Your task to perform on an android device: change timer sound Image 0: 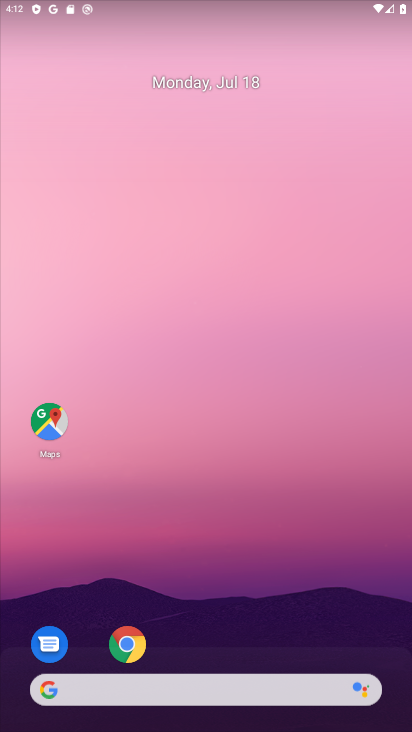
Step 0: drag from (290, 646) to (278, 182)
Your task to perform on an android device: change timer sound Image 1: 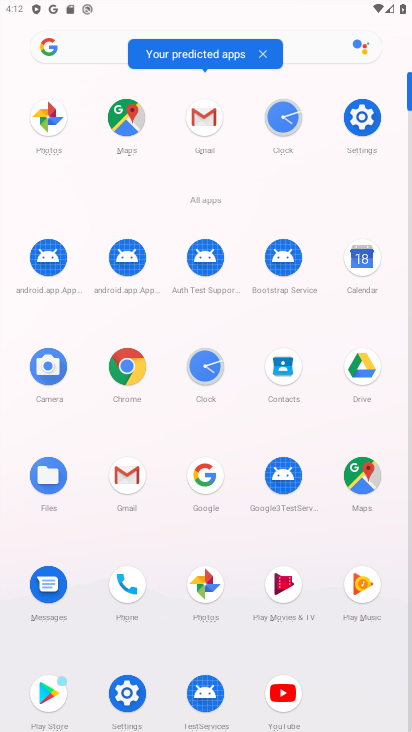
Step 1: click (290, 119)
Your task to perform on an android device: change timer sound Image 2: 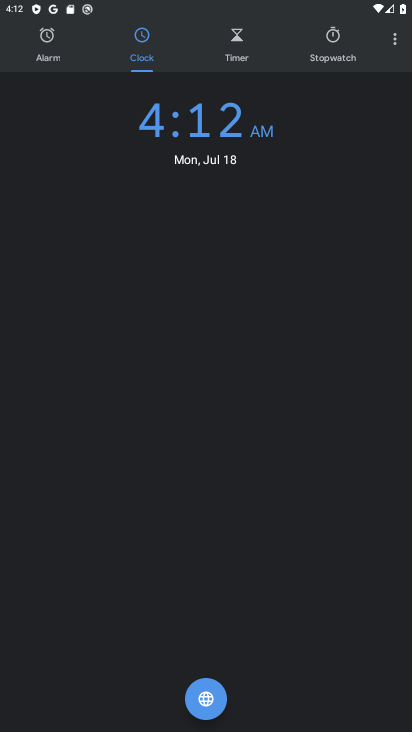
Step 2: click (400, 43)
Your task to perform on an android device: change timer sound Image 3: 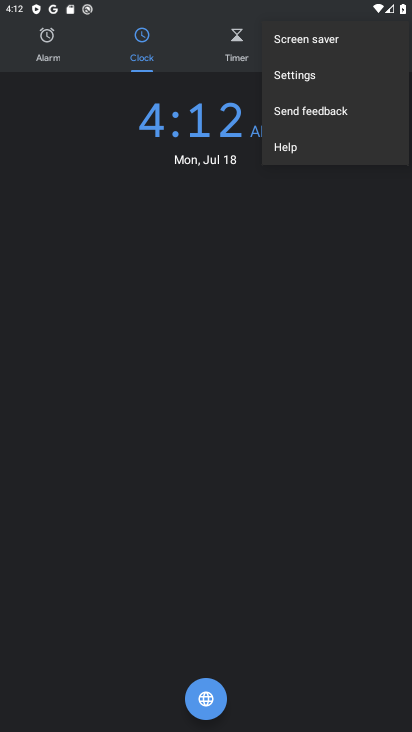
Step 3: click (345, 74)
Your task to perform on an android device: change timer sound Image 4: 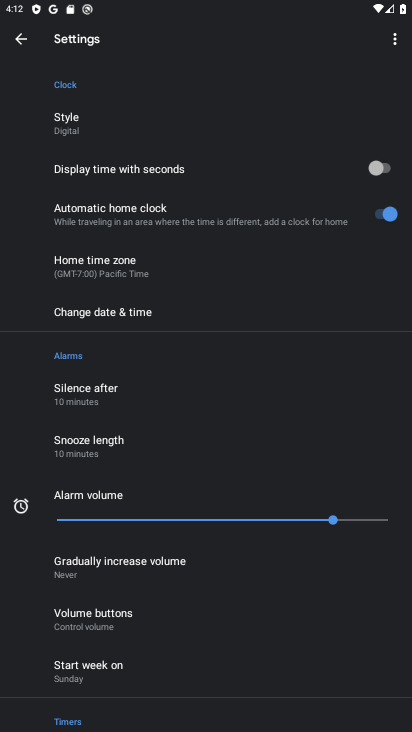
Step 4: drag from (260, 649) to (254, 393)
Your task to perform on an android device: change timer sound Image 5: 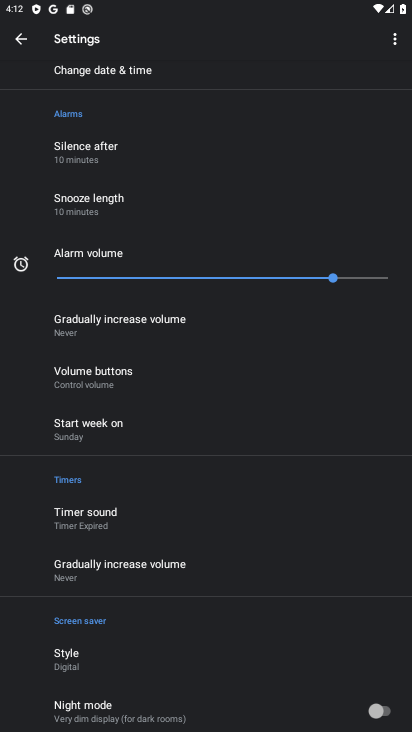
Step 5: click (247, 494)
Your task to perform on an android device: change timer sound Image 6: 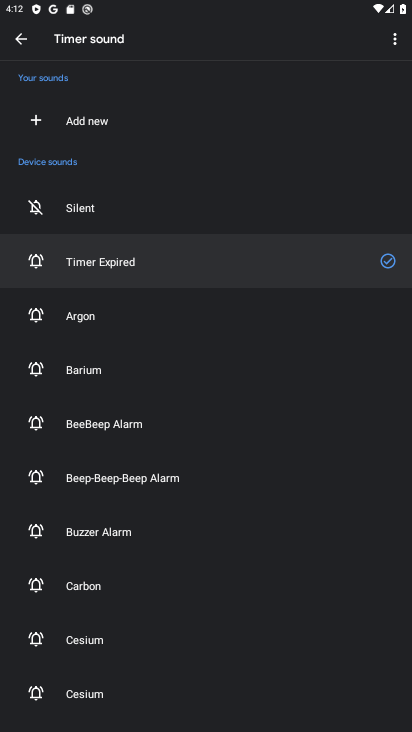
Step 6: click (269, 397)
Your task to perform on an android device: change timer sound Image 7: 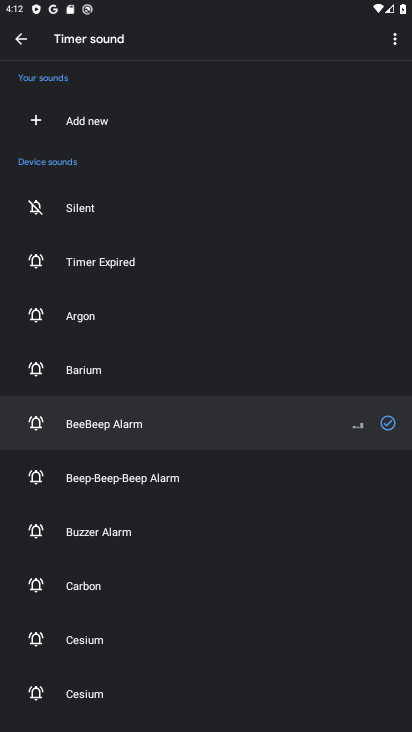
Step 7: task complete